Your task to perform on an android device: see tabs open on other devices in the chrome app Image 0: 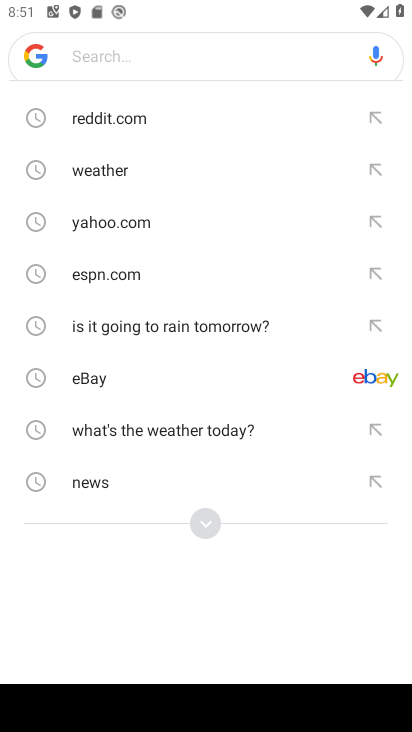
Step 0: press home button
Your task to perform on an android device: see tabs open on other devices in the chrome app Image 1: 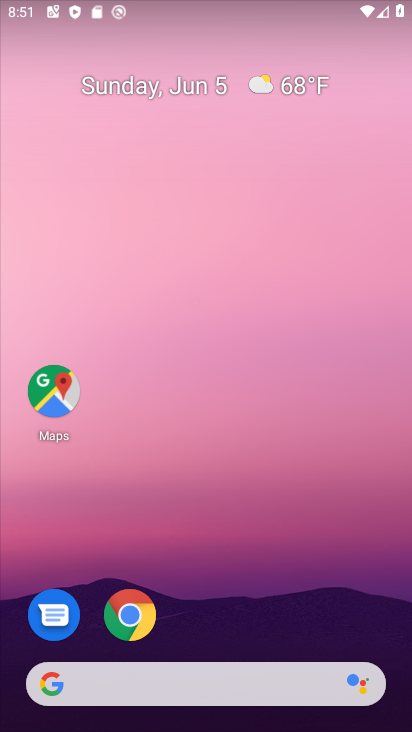
Step 1: click (138, 607)
Your task to perform on an android device: see tabs open on other devices in the chrome app Image 2: 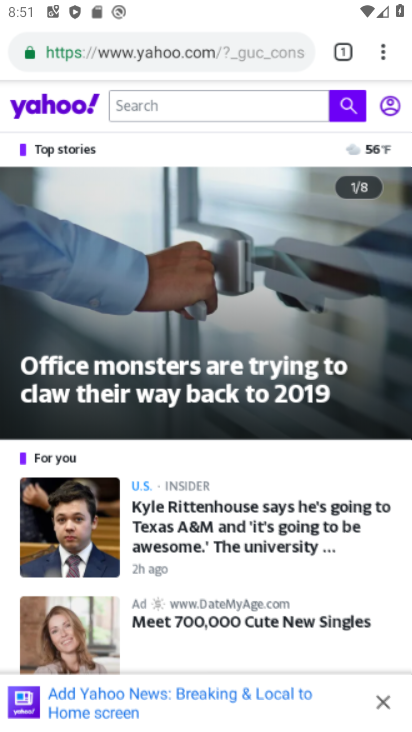
Step 2: click (385, 50)
Your task to perform on an android device: see tabs open on other devices in the chrome app Image 3: 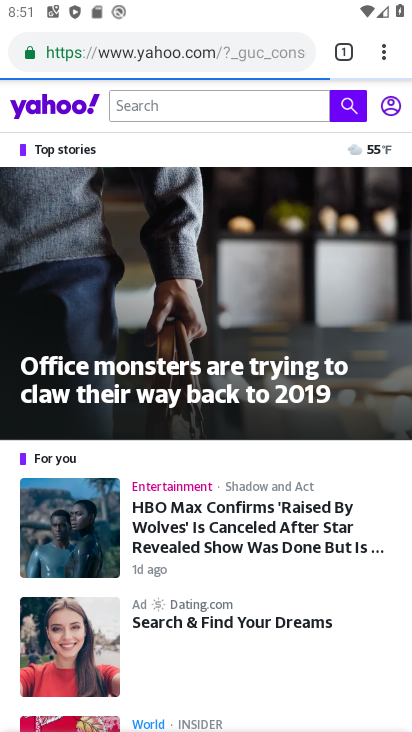
Step 3: click (379, 42)
Your task to perform on an android device: see tabs open on other devices in the chrome app Image 4: 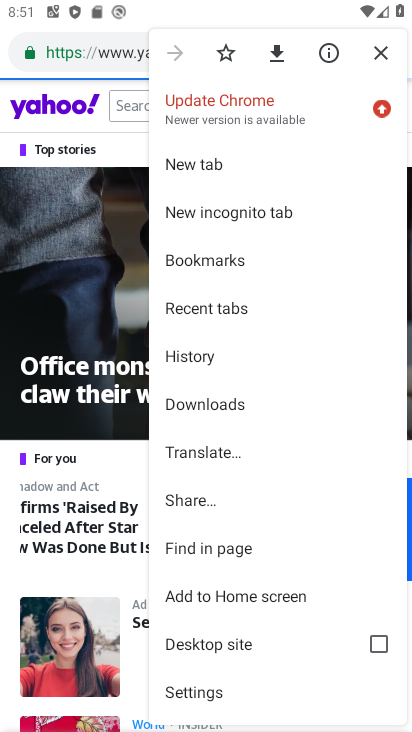
Step 4: click (238, 316)
Your task to perform on an android device: see tabs open on other devices in the chrome app Image 5: 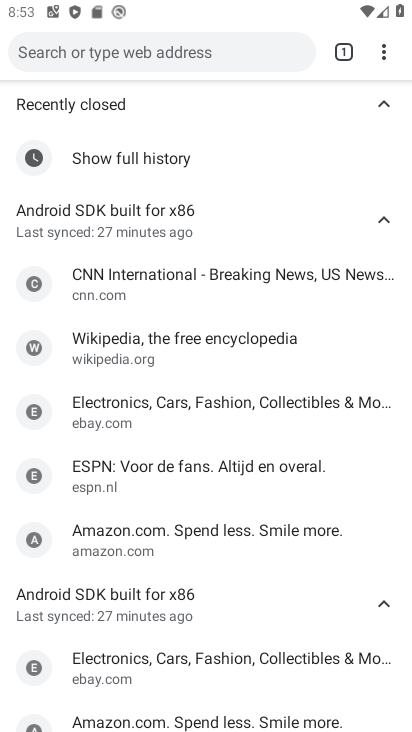
Step 5: task complete